Your task to perform on an android device: What is the recent news? Image 0: 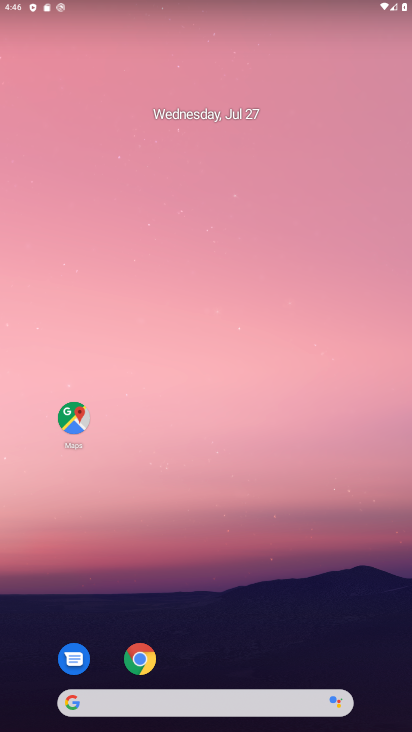
Step 0: click (134, 664)
Your task to perform on an android device: What is the recent news? Image 1: 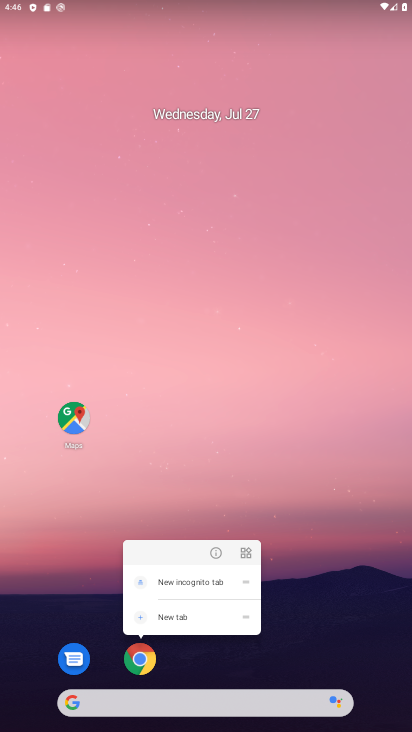
Step 1: click (146, 660)
Your task to perform on an android device: What is the recent news? Image 2: 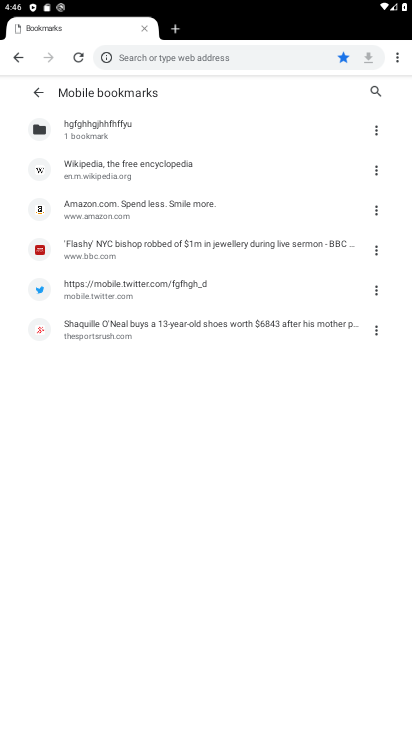
Step 2: click (190, 58)
Your task to perform on an android device: What is the recent news? Image 3: 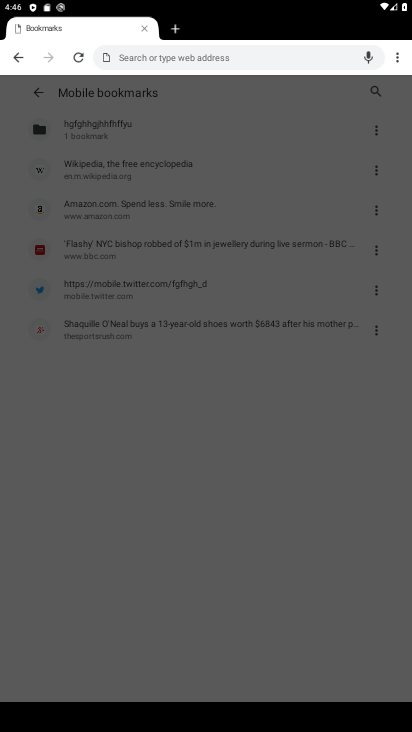
Step 3: type "What is the recent news?"
Your task to perform on an android device: What is the recent news? Image 4: 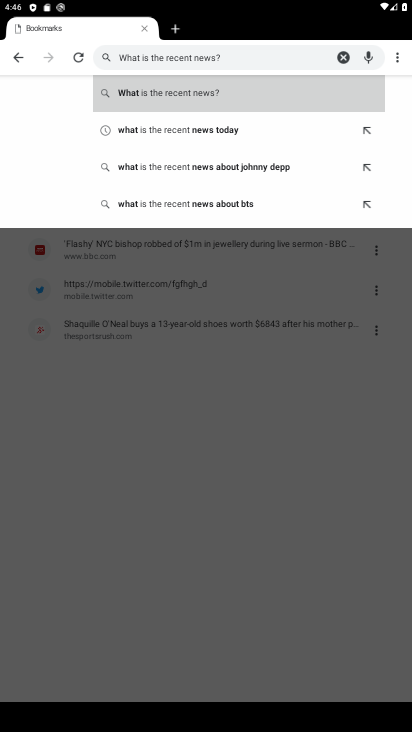
Step 4: click (194, 87)
Your task to perform on an android device: What is the recent news? Image 5: 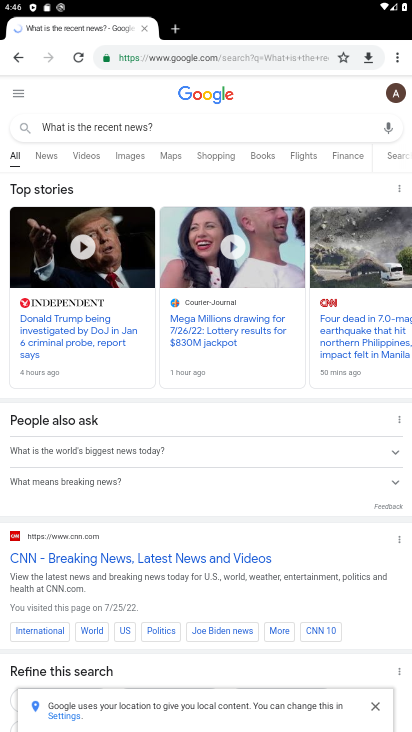
Step 5: task complete